Your task to perform on an android device: toggle location history Image 0: 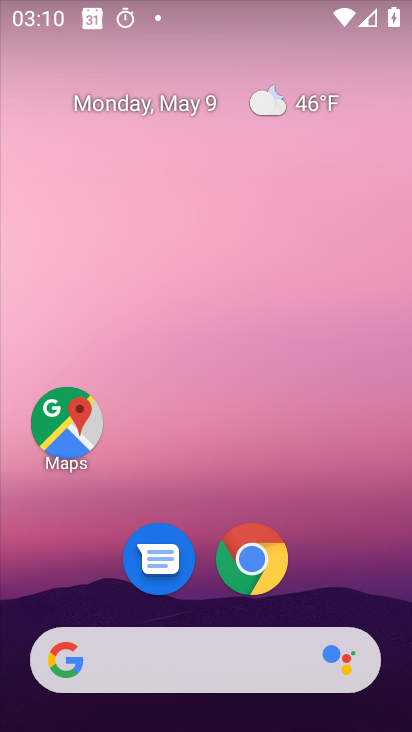
Step 0: drag from (340, 573) to (225, 0)
Your task to perform on an android device: toggle location history Image 1: 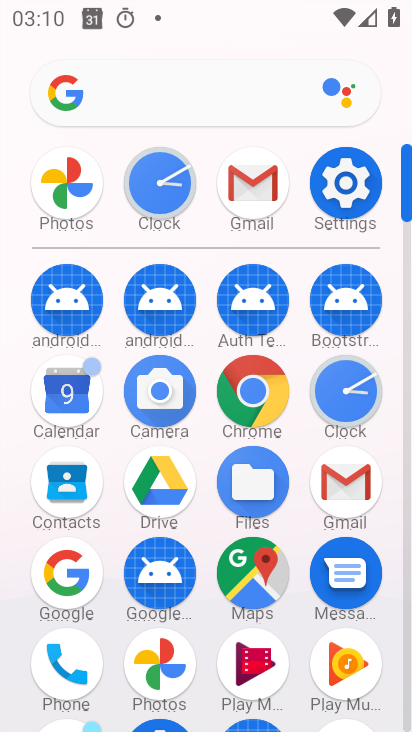
Step 1: click (348, 180)
Your task to perform on an android device: toggle location history Image 2: 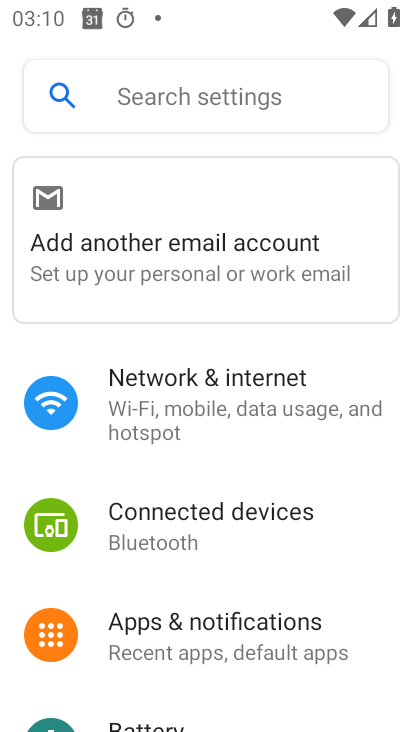
Step 2: drag from (237, 676) to (260, 408)
Your task to perform on an android device: toggle location history Image 3: 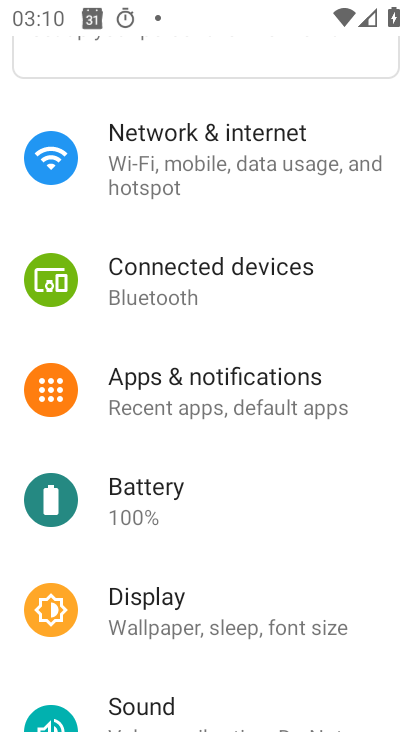
Step 3: drag from (197, 679) to (208, 509)
Your task to perform on an android device: toggle location history Image 4: 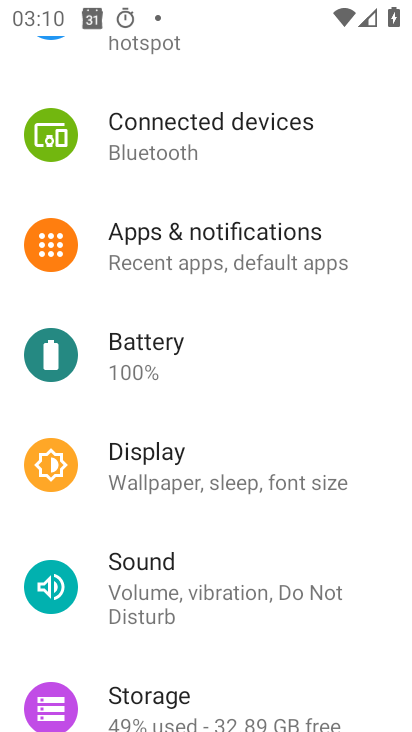
Step 4: drag from (237, 618) to (265, 450)
Your task to perform on an android device: toggle location history Image 5: 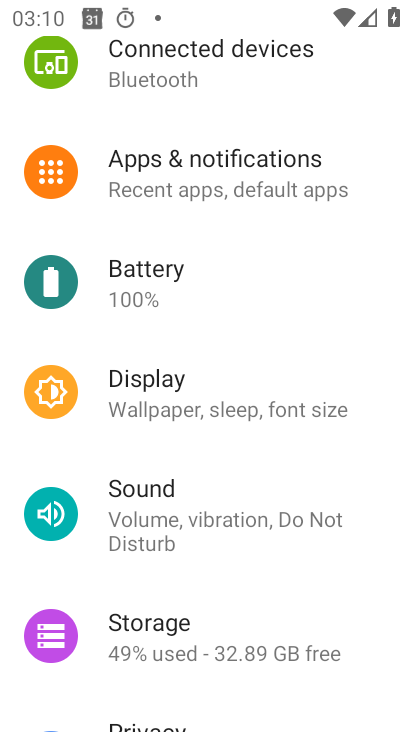
Step 5: drag from (202, 676) to (254, 473)
Your task to perform on an android device: toggle location history Image 6: 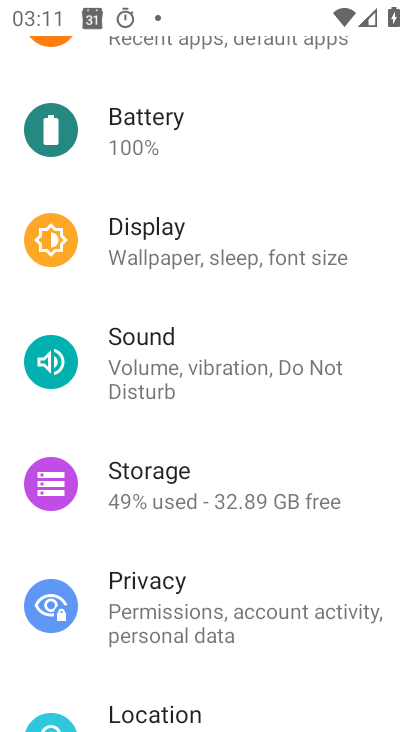
Step 6: drag from (176, 671) to (250, 520)
Your task to perform on an android device: toggle location history Image 7: 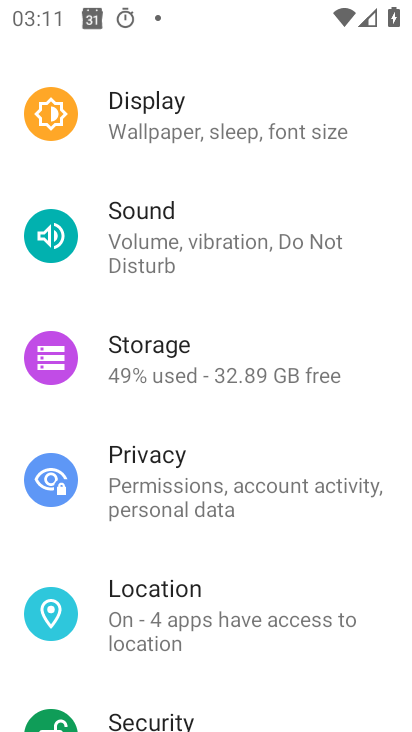
Step 7: click (177, 592)
Your task to perform on an android device: toggle location history Image 8: 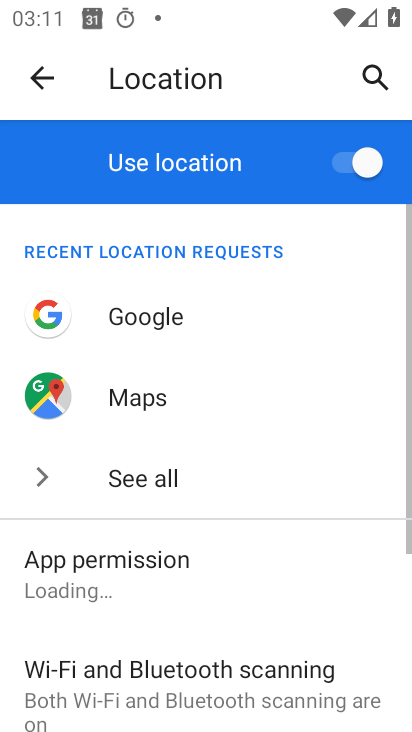
Step 8: drag from (175, 570) to (276, 422)
Your task to perform on an android device: toggle location history Image 9: 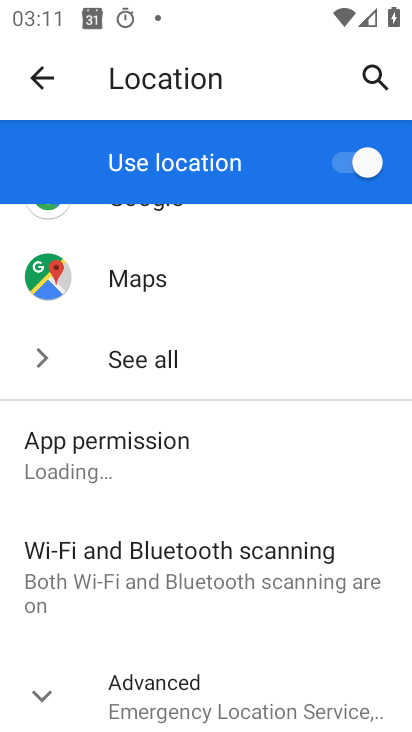
Step 9: drag from (200, 597) to (243, 498)
Your task to perform on an android device: toggle location history Image 10: 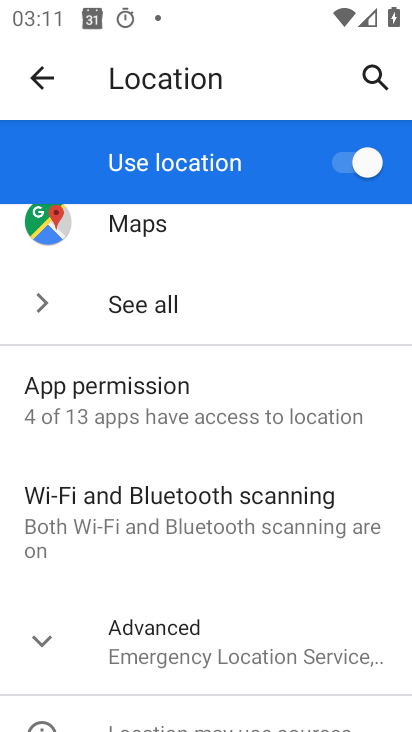
Step 10: click (208, 639)
Your task to perform on an android device: toggle location history Image 11: 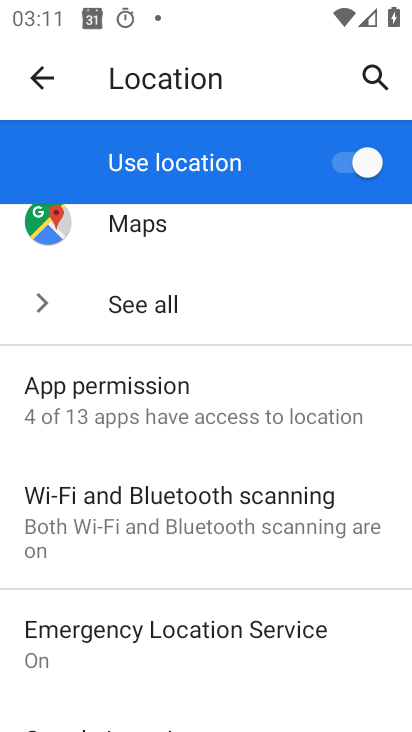
Step 11: drag from (134, 650) to (174, 463)
Your task to perform on an android device: toggle location history Image 12: 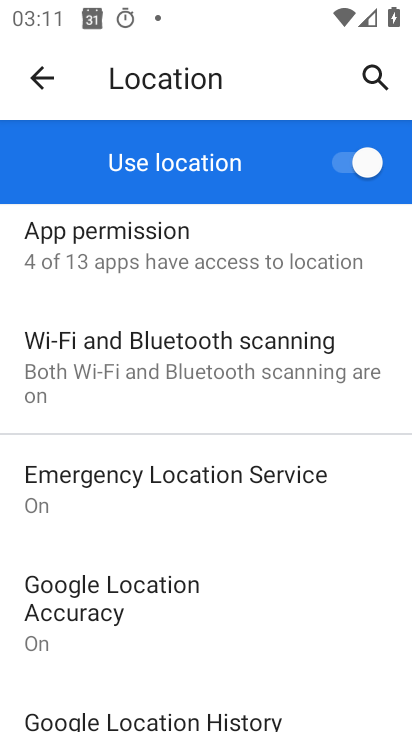
Step 12: drag from (200, 595) to (243, 517)
Your task to perform on an android device: toggle location history Image 13: 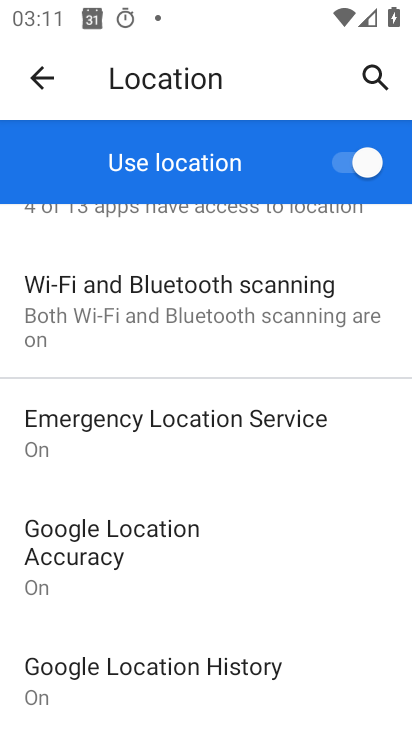
Step 13: click (147, 663)
Your task to perform on an android device: toggle location history Image 14: 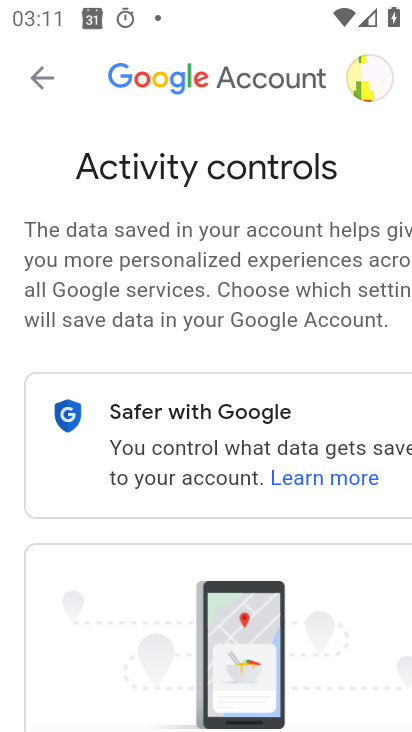
Step 14: drag from (116, 575) to (128, 316)
Your task to perform on an android device: toggle location history Image 15: 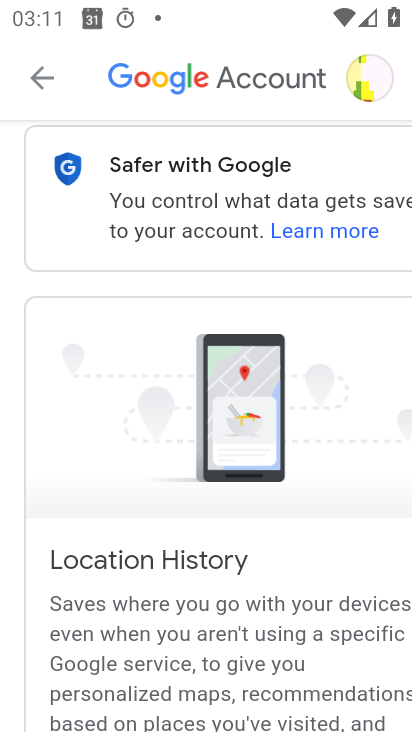
Step 15: drag from (156, 604) to (195, 324)
Your task to perform on an android device: toggle location history Image 16: 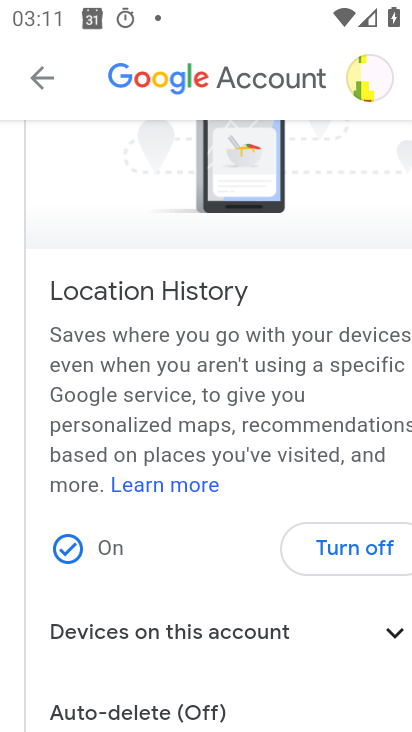
Step 16: click (361, 535)
Your task to perform on an android device: toggle location history Image 17: 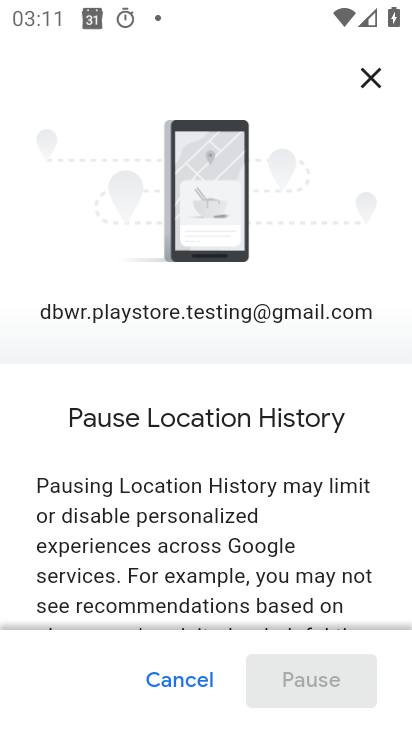
Step 17: drag from (277, 604) to (337, 203)
Your task to perform on an android device: toggle location history Image 18: 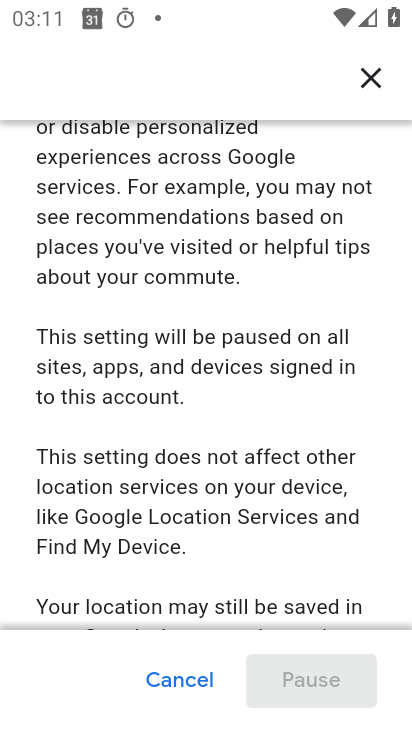
Step 18: drag from (224, 493) to (285, 194)
Your task to perform on an android device: toggle location history Image 19: 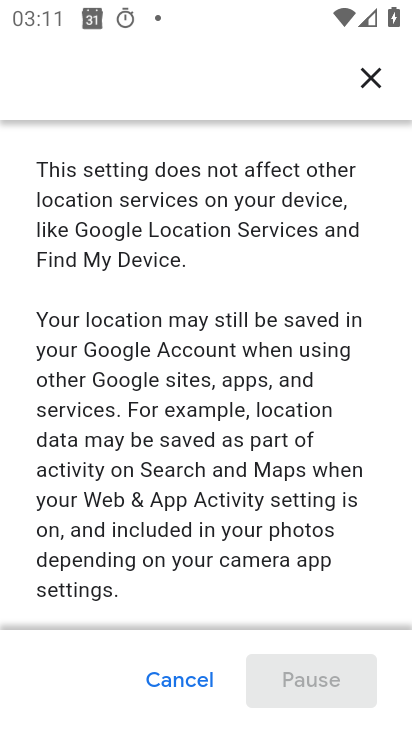
Step 19: drag from (246, 269) to (236, 226)
Your task to perform on an android device: toggle location history Image 20: 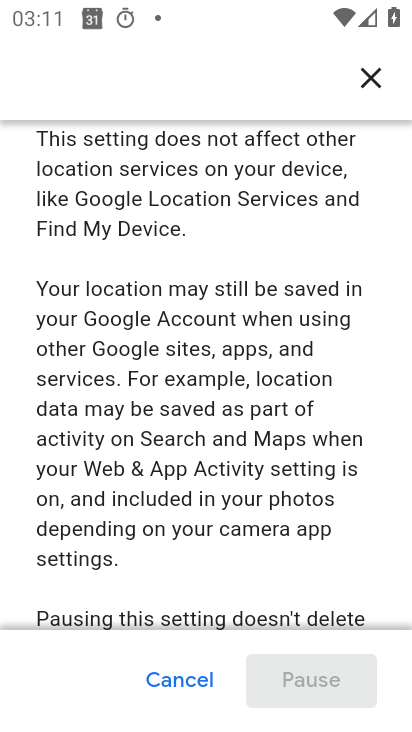
Step 20: drag from (214, 518) to (252, 301)
Your task to perform on an android device: toggle location history Image 21: 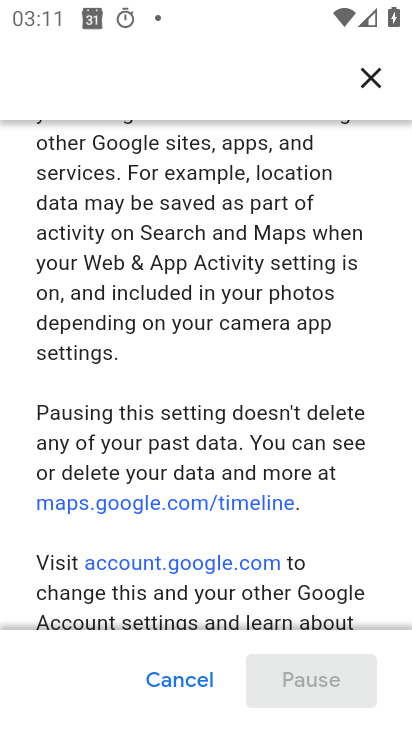
Step 21: drag from (238, 501) to (310, 243)
Your task to perform on an android device: toggle location history Image 22: 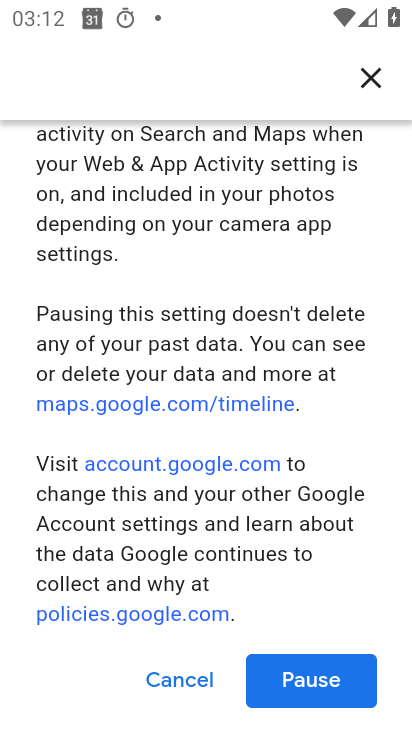
Step 22: click (305, 682)
Your task to perform on an android device: toggle location history Image 23: 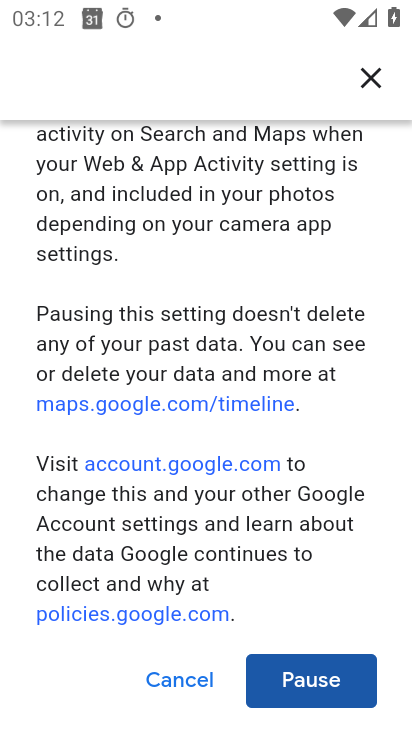
Step 23: click (301, 683)
Your task to perform on an android device: toggle location history Image 24: 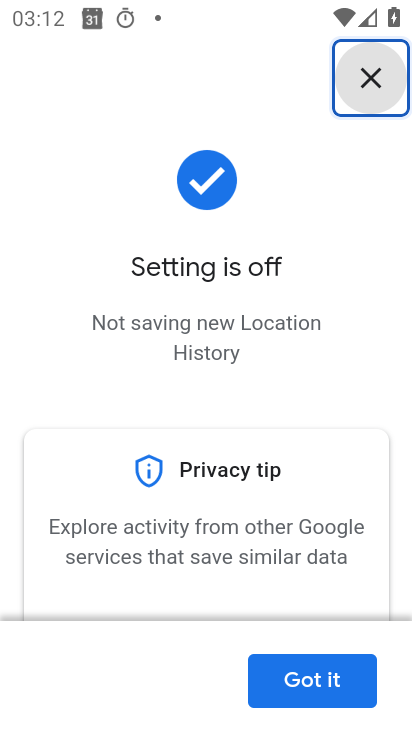
Step 24: task complete